Your task to perform on an android device: open wifi settings Image 0: 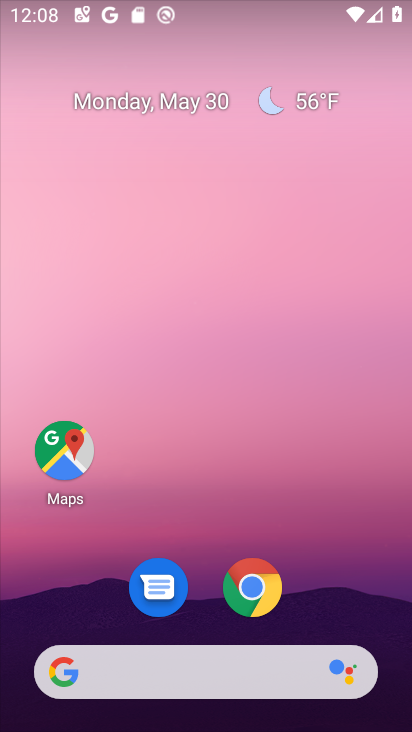
Step 0: drag from (375, 602) to (306, 123)
Your task to perform on an android device: open wifi settings Image 1: 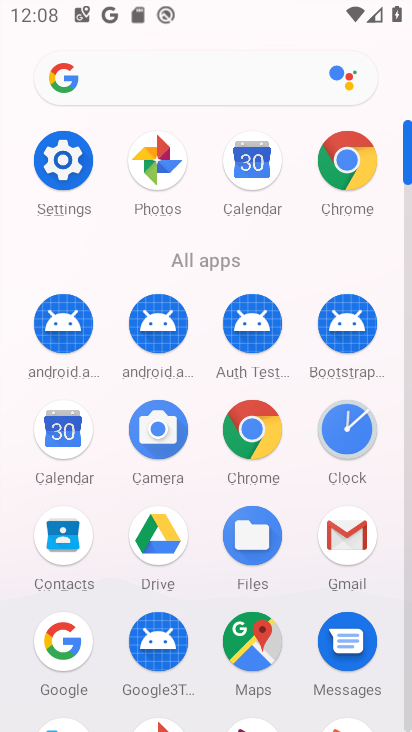
Step 1: click (71, 164)
Your task to perform on an android device: open wifi settings Image 2: 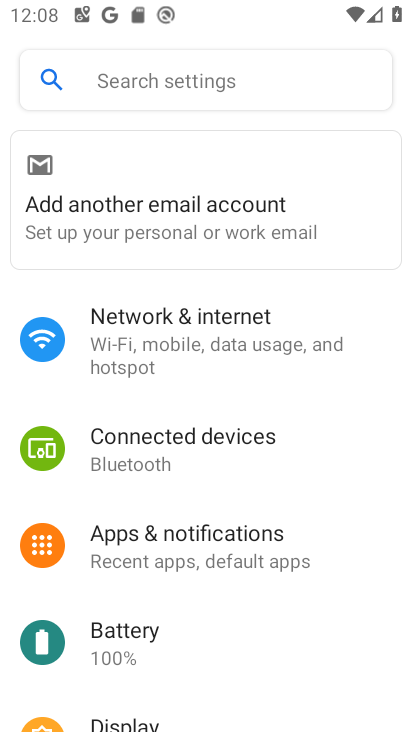
Step 2: click (115, 346)
Your task to perform on an android device: open wifi settings Image 3: 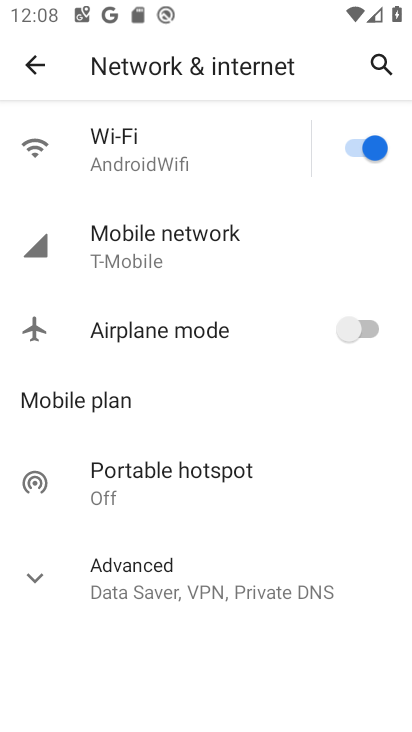
Step 3: click (147, 161)
Your task to perform on an android device: open wifi settings Image 4: 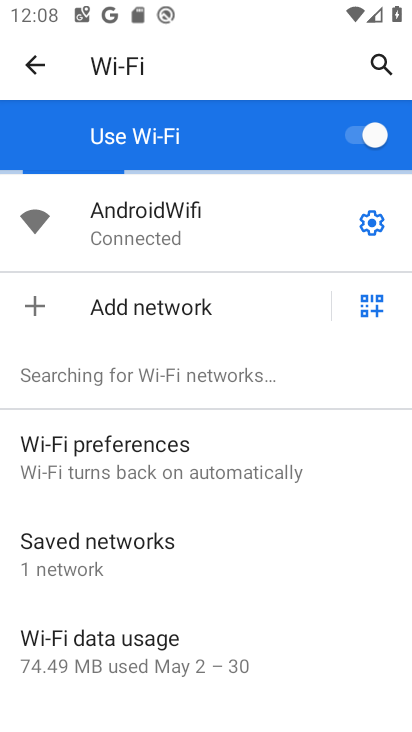
Step 4: task complete